Your task to perform on an android device: turn on notifications settings in the gmail app Image 0: 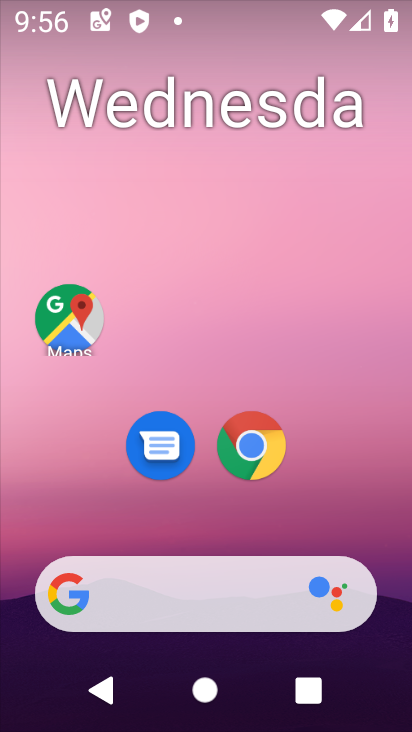
Step 0: drag from (181, 552) to (295, 89)
Your task to perform on an android device: turn on notifications settings in the gmail app Image 1: 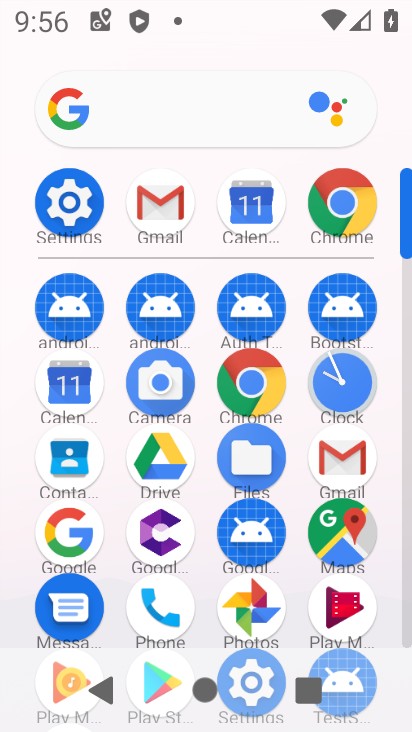
Step 1: click (151, 203)
Your task to perform on an android device: turn on notifications settings in the gmail app Image 2: 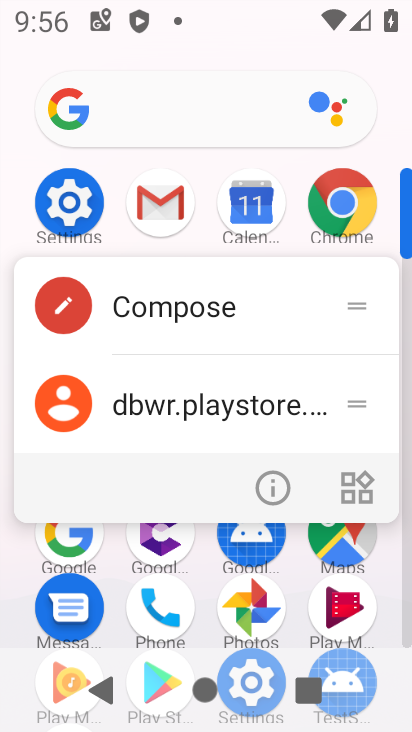
Step 2: click (272, 486)
Your task to perform on an android device: turn on notifications settings in the gmail app Image 3: 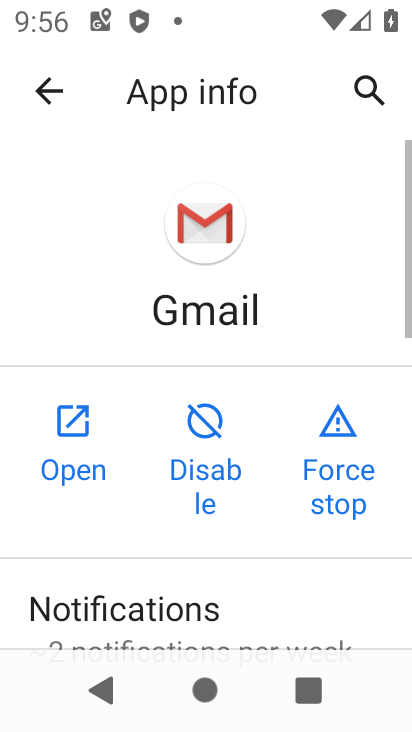
Step 3: click (191, 609)
Your task to perform on an android device: turn on notifications settings in the gmail app Image 4: 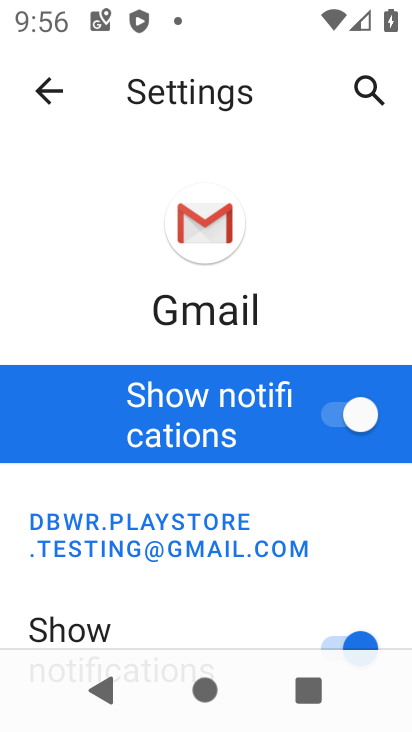
Step 4: task complete